Your task to perform on an android device: change alarm snooze length Image 0: 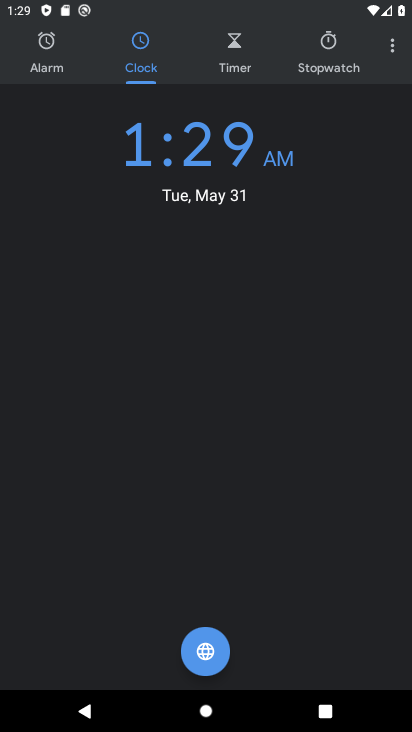
Step 0: press home button
Your task to perform on an android device: change alarm snooze length Image 1: 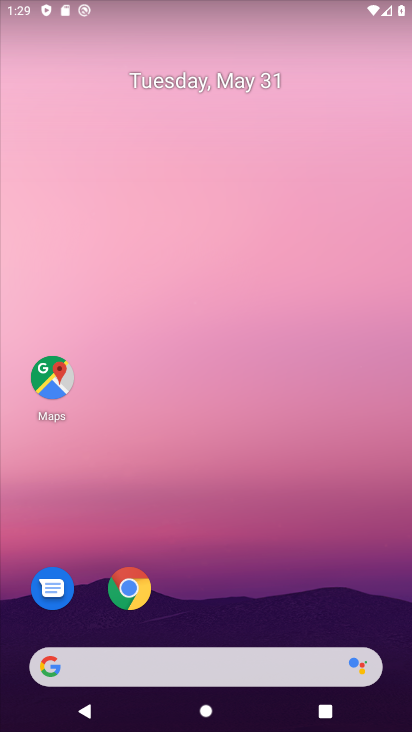
Step 1: drag from (242, 617) to (187, 231)
Your task to perform on an android device: change alarm snooze length Image 2: 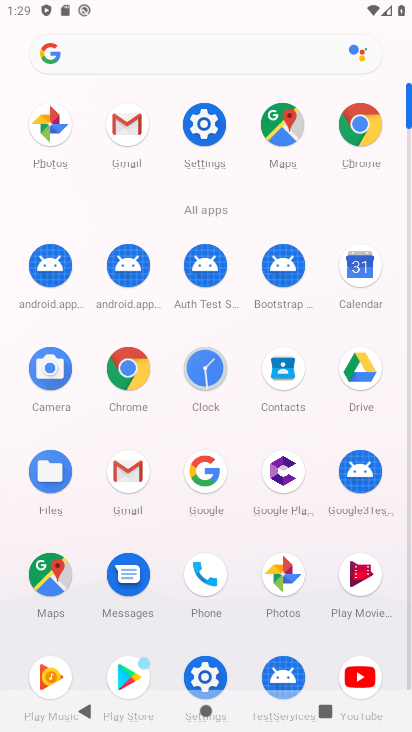
Step 2: click (216, 374)
Your task to perform on an android device: change alarm snooze length Image 3: 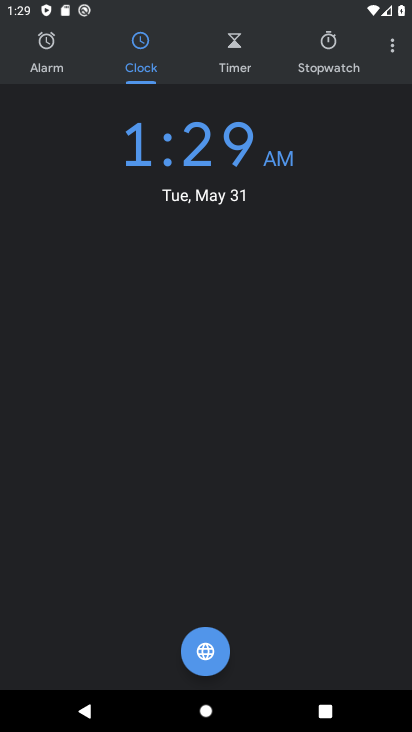
Step 3: click (396, 38)
Your task to perform on an android device: change alarm snooze length Image 4: 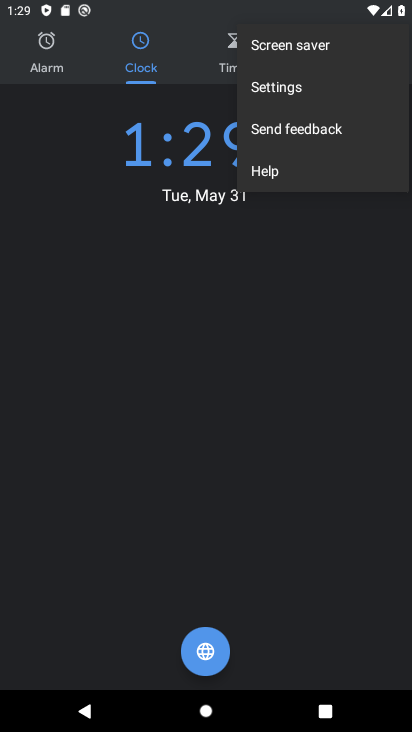
Step 4: click (322, 84)
Your task to perform on an android device: change alarm snooze length Image 5: 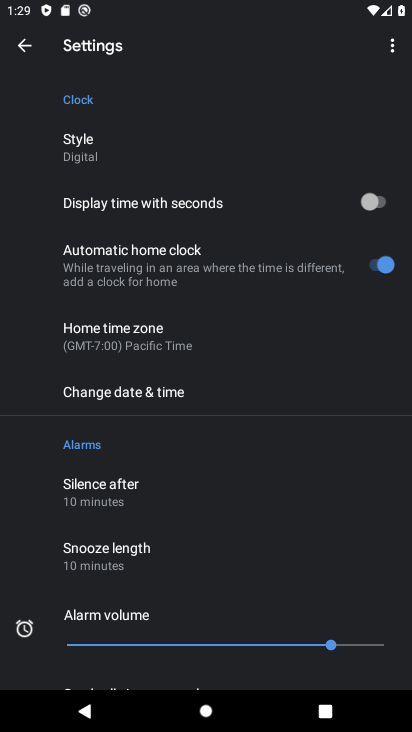
Step 5: click (188, 559)
Your task to perform on an android device: change alarm snooze length Image 6: 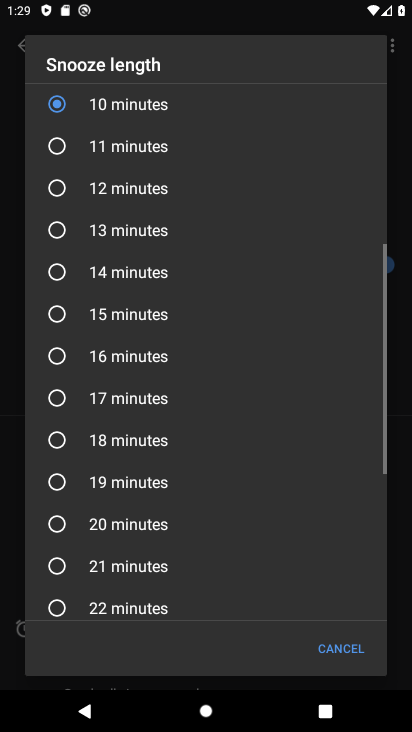
Step 6: click (166, 538)
Your task to perform on an android device: change alarm snooze length Image 7: 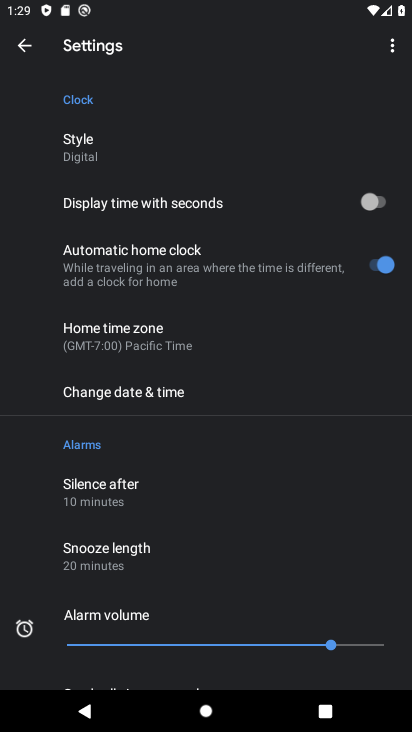
Step 7: task complete